Your task to perform on an android device: Add "energizer triple a" to the cart on walmart Image 0: 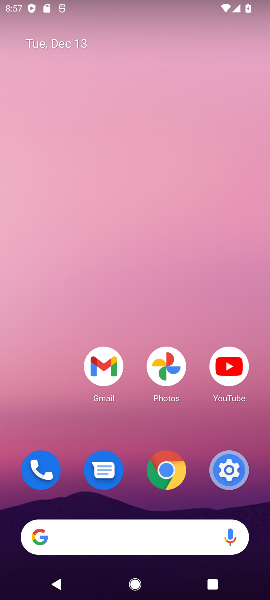
Step 0: press home button
Your task to perform on an android device: Add "energizer triple a" to the cart on walmart Image 1: 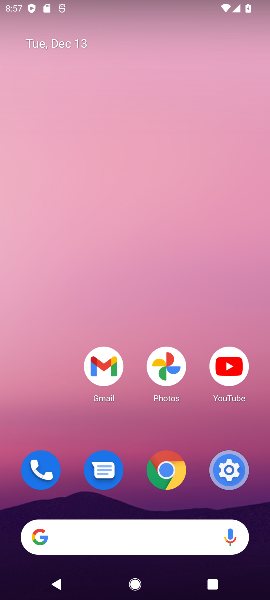
Step 1: click (57, 534)
Your task to perform on an android device: Add "energizer triple a" to the cart on walmart Image 2: 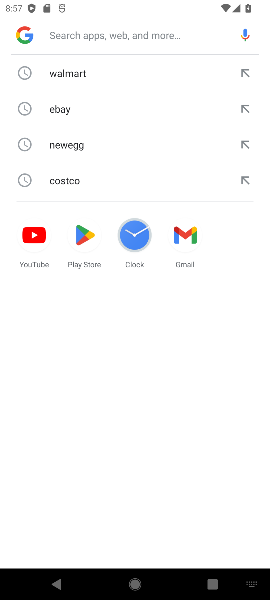
Step 2: type "walmart"
Your task to perform on an android device: Add "energizer triple a" to the cart on walmart Image 3: 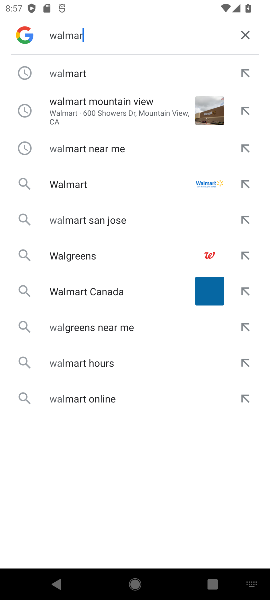
Step 3: press enter
Your task to perform on an android device: Add "energizer triple a" to the cart on walmart Image 4: 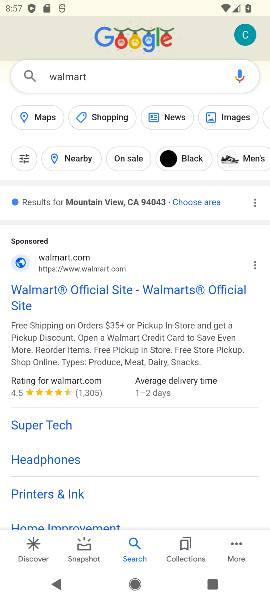
Step 4: click (36, 290)
Your task to perform on an android device: Add "energizer triple a" to the cart on walmart Image 5: 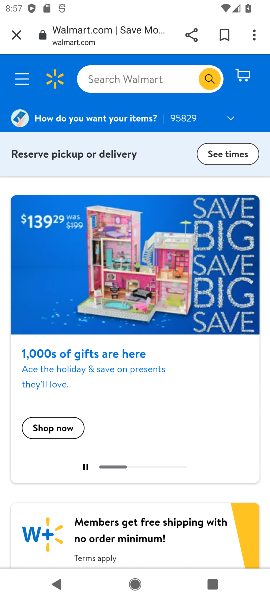
Step 5: click (109, 73)
Your task to perform on an android device: Add "energizer triple a" to the cart on walmart Image 6: 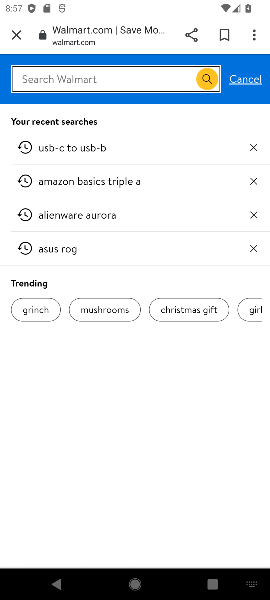
Step 6: type "energizer triple a"
Your task to perform on an android device: Add "energizer triple a" to the cart on walmart Image 7: 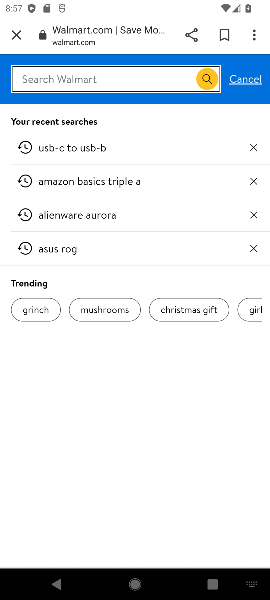
Step 7: press enter
Your task to perform on an android device: Add "energizer triple a" to the cart on walmart Image 8: 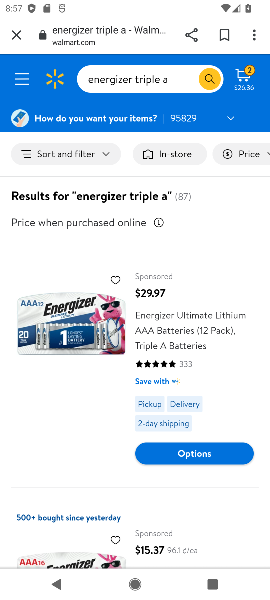
Step 8: drag from (192, 515) to (212, 327)
Your task to perform on an android device: Add "energizer triple a" to the cart on walmart Image 9: 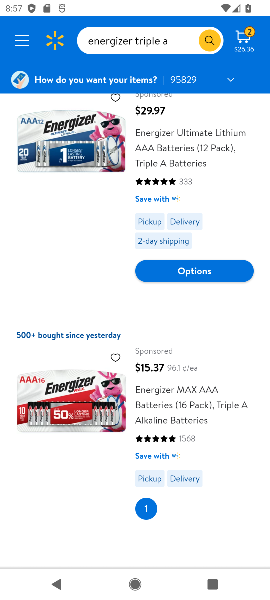
Step 9: drag from (194, 302) to (201, 452)
Your task to perform on an android device: Add "energizer triple a" to the cart on walmart Image 10: 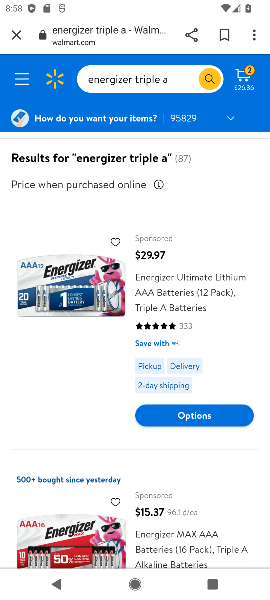
Step 10: click (164, 291)
Your task to perform on an android device: Add "energizer triple a" to the cart on walmart Image 11: 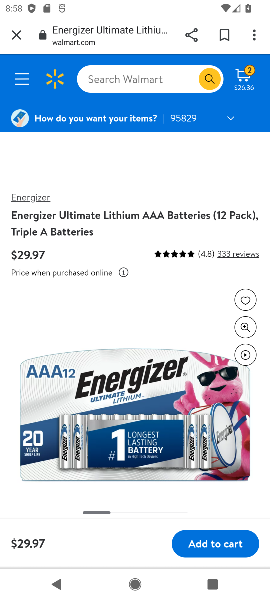
Step 11: click (216, 544)
Your task to perform on an android device: Add "energizer triple a" to the cart on walmart Image 12: 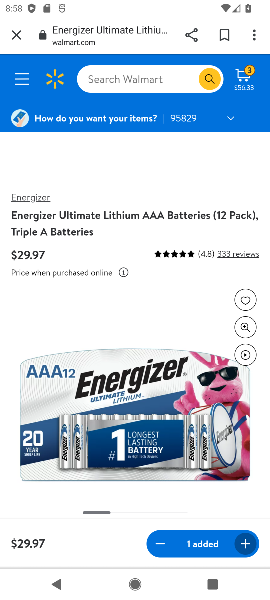
Step 12: drag from (136, 471) to (159, 219)
Your task to perform on an android device: Add "energizer triple a" to the cart on walmart Image 13: 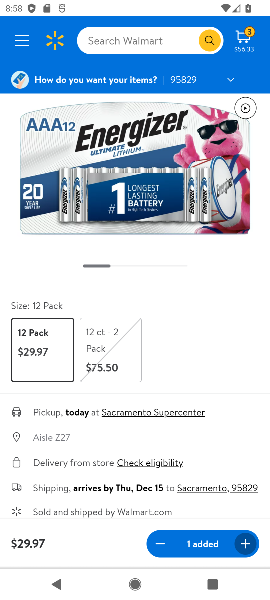
Step 13: drag from (200, 469) to (214, 250)
Your task to perform on an android device: Add "energizer triple a" to the cart on walmart Image 14: 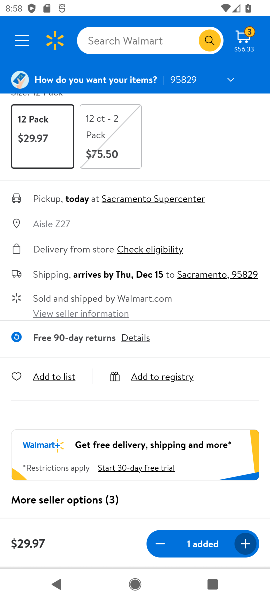
Step 14: drag from (174, 492) to (174, 270)
Your task to perform on an android device: Add "energizer triple a" to the cart on walmart Image 15: 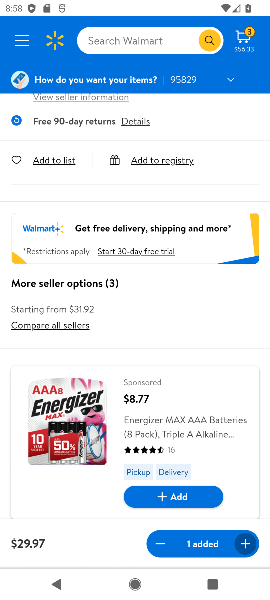
Step 15: drag from (200, 136) to (165, 479)
Your task to perform on an android device: Add "energizer triple a" to the cart on walmart Image 16: 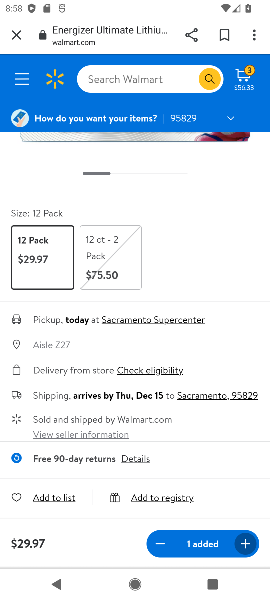
Step 16: drag from (190, 168) to (190, 450)
Your task to perform on an android device: Add "energizer triple a" to the cart on walmart Image 17: 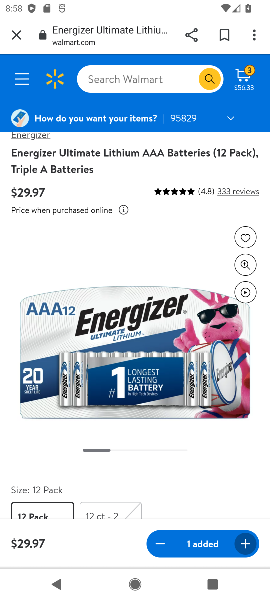
Step 17: drag from (132, 173) to (132, 388)
Your task to perform on an android device: Add "energizer triple a" to the cart on walmart Image 18: 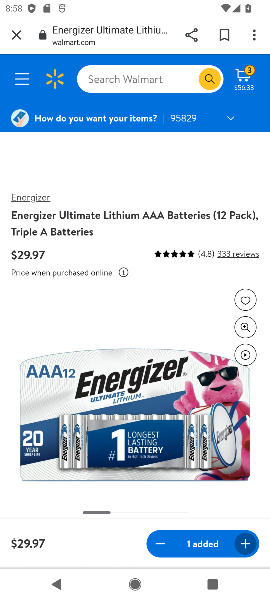
Step 18: click (131, 72)
Your task to perform on an android device: Add "energizer triple a" to the cart on walmart Image 19: 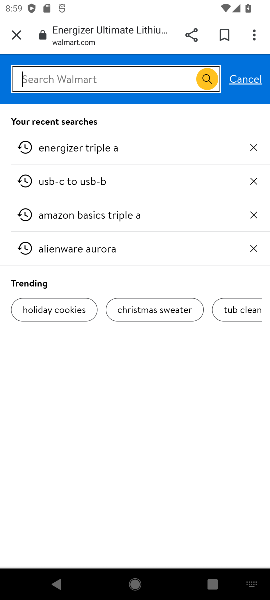
Step 19: type "energizer triple a"
Your task to perform on an android device: Add "energizer triple a" to the cart on walmart Image 20: 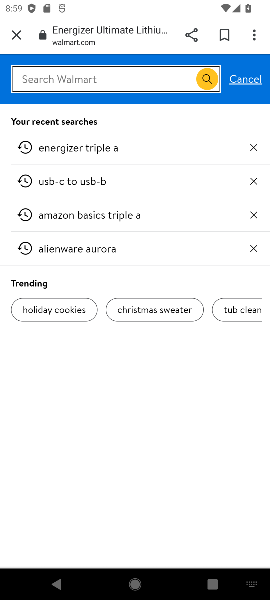
Step 20: press enter
Your task to perform on an android device: Add "energizer triple a" to the cart on walmart Image 21: 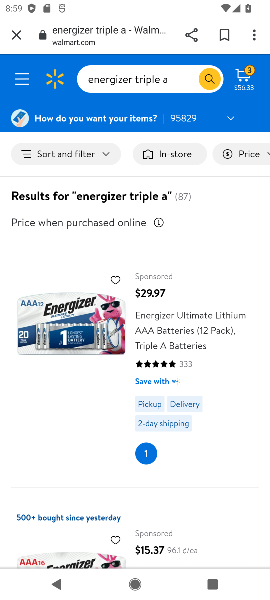
Step 21: task complete